Your task to perform on an android device: open wifi settings Image 0: 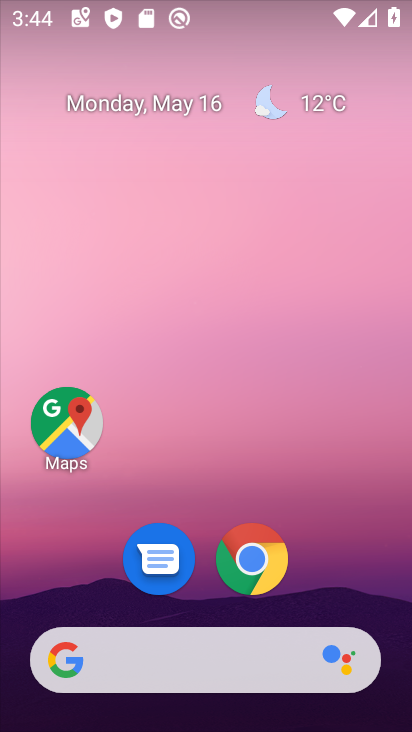
Step 0: drag from (341, 581) to (307, 50)
Your task to perform on an android device: open wifi settings Image 1: 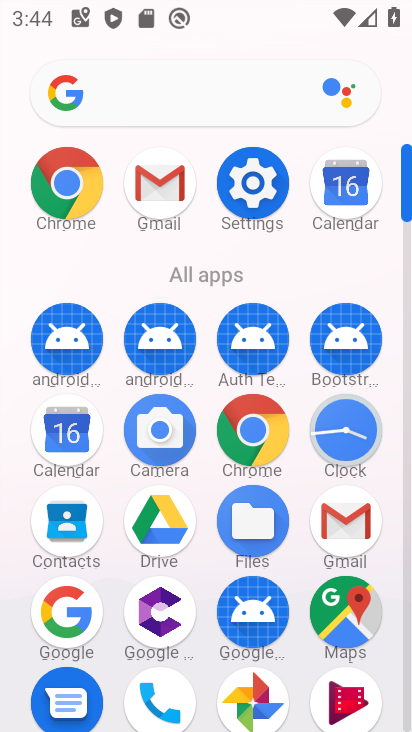
Step 1: click (232, 218)
Your task to perform on an android device: open wifi settings Image 2: 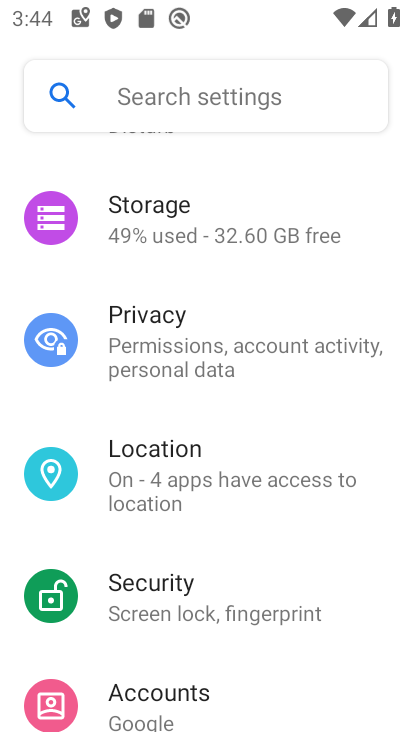
Step 2: drag from (232, 218) to (280, 704)
Your task to perform on an android device: open wifi settings Image 3: 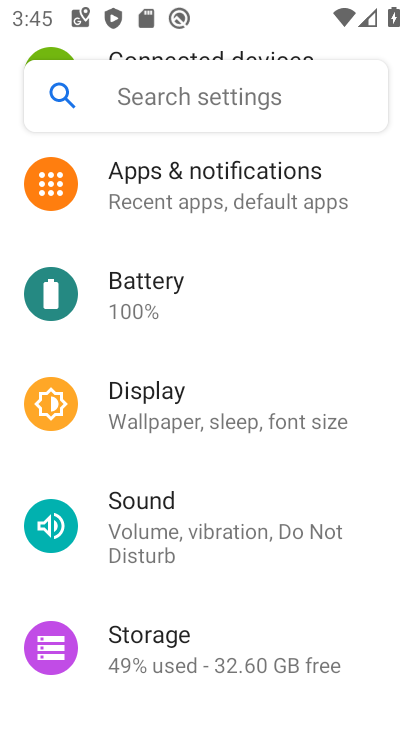
Step 3: drag from (203, 265) to (236, 671)
Your task to perform on an android device: open wifi settings Image 4: 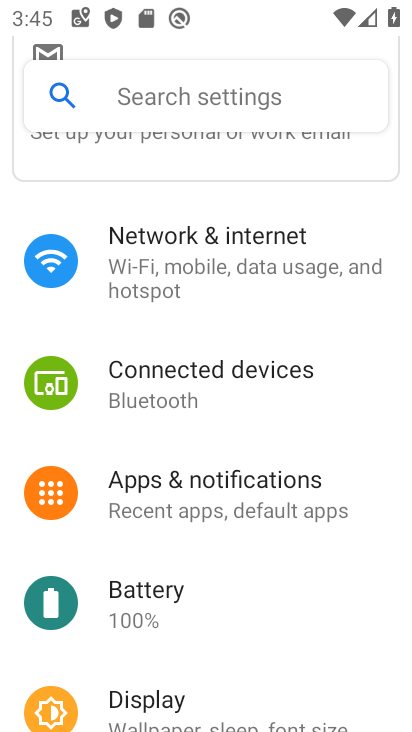
Step 4: click (258, 271)
Your task to perform on an android device: open wifi settings Image 5: 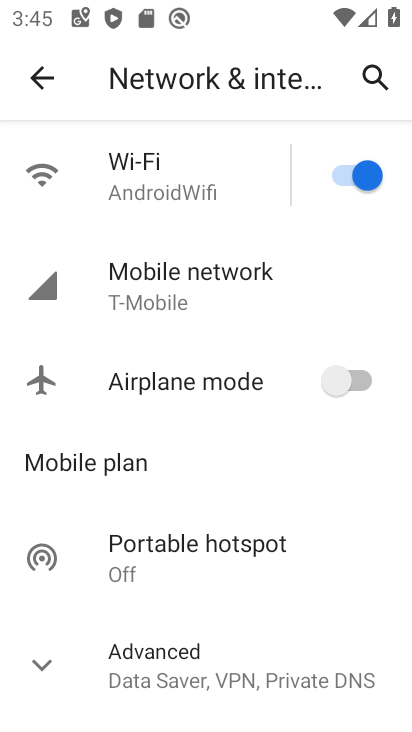
Step 5: click (200, 207)
Your task to perform on an android device: open wifi settings Image 6: 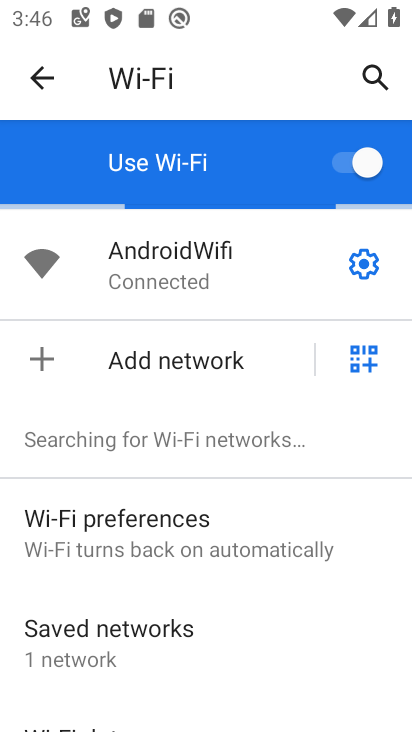
Step 6: task complete